Your task to perform on an android device: open app "Roku - Official Remote Control" (install if not already installed) and go to login screen Image 0: 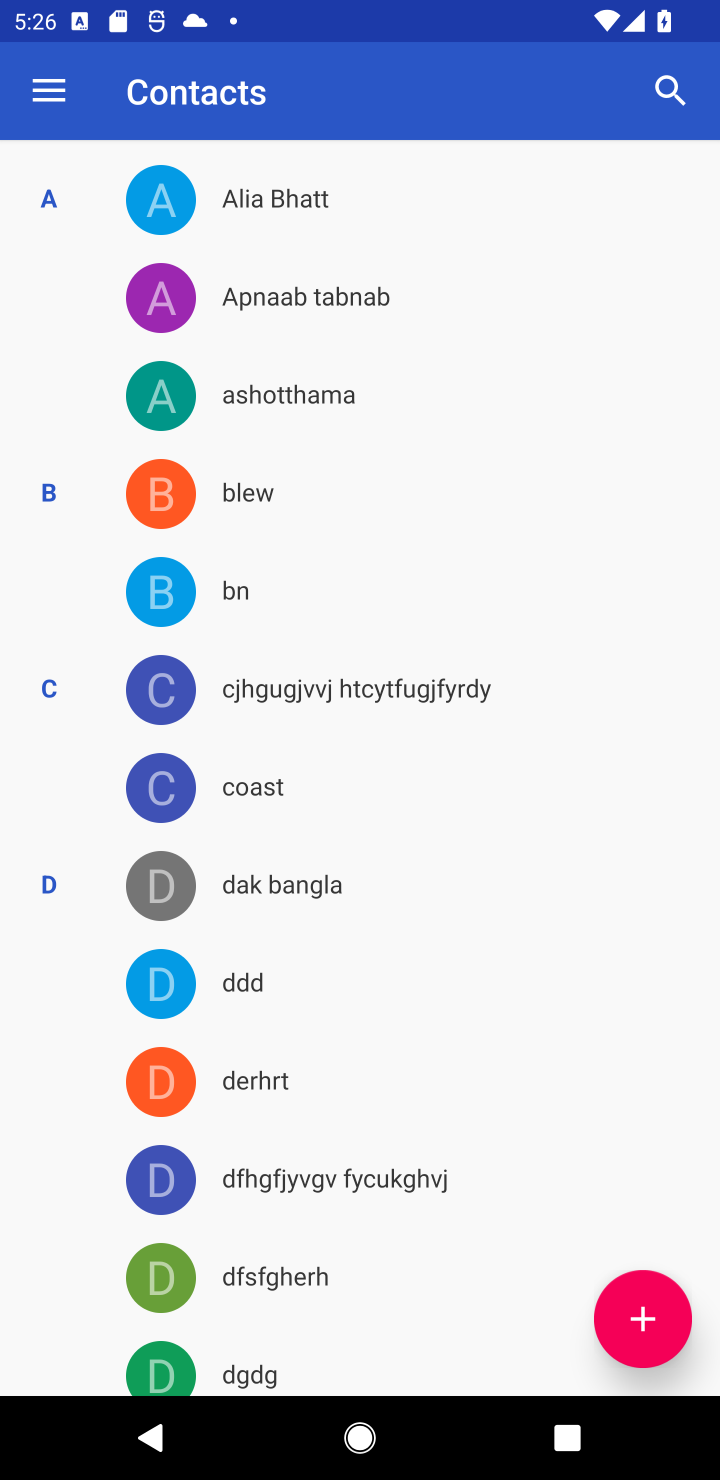
Step 0: press home button
Your task to perform on an android device: open app "Roku - Official Remote Control" (install if not already installed) and go to login screen Image 1: 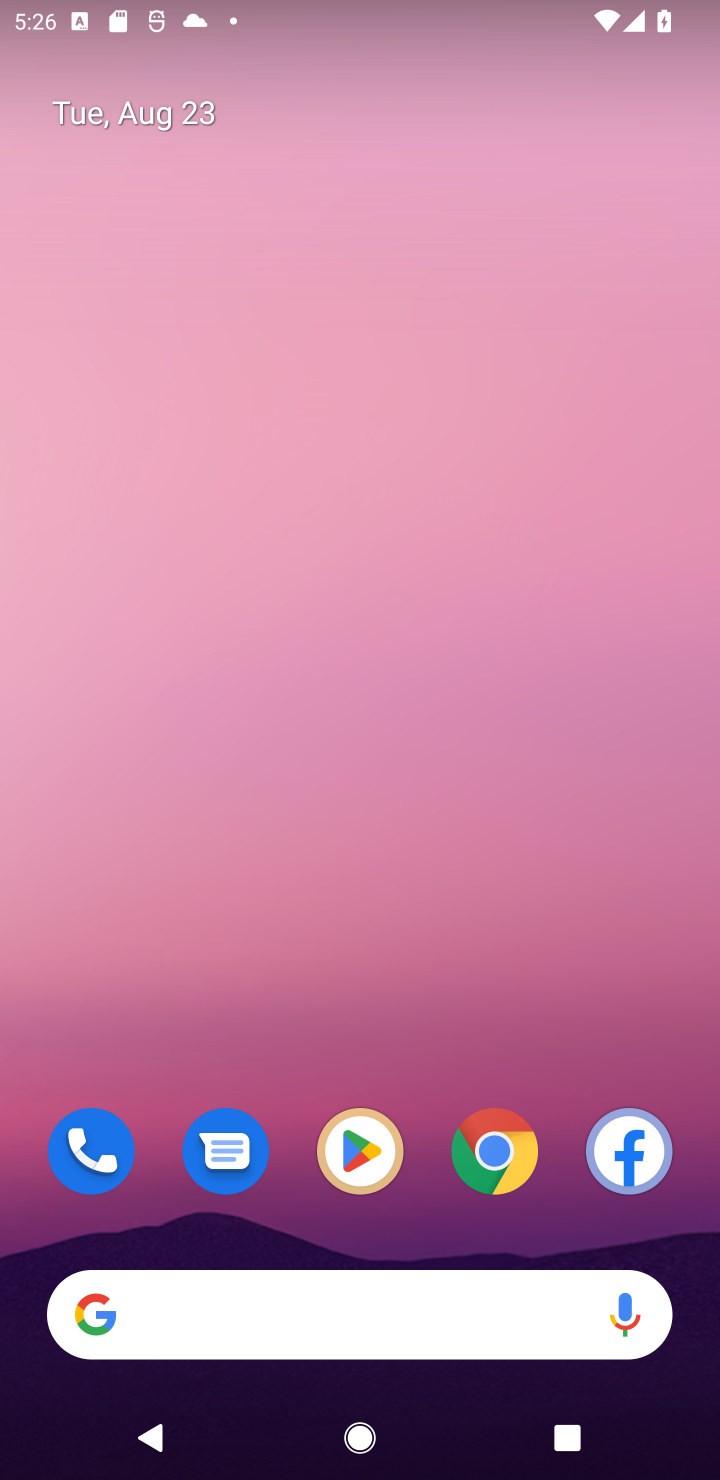
Step 1: click (348, 1159)
Your task to perform on an android device: open app "Roku - Official Remote Control" (install if not already installed) and go to login screen Image 2: 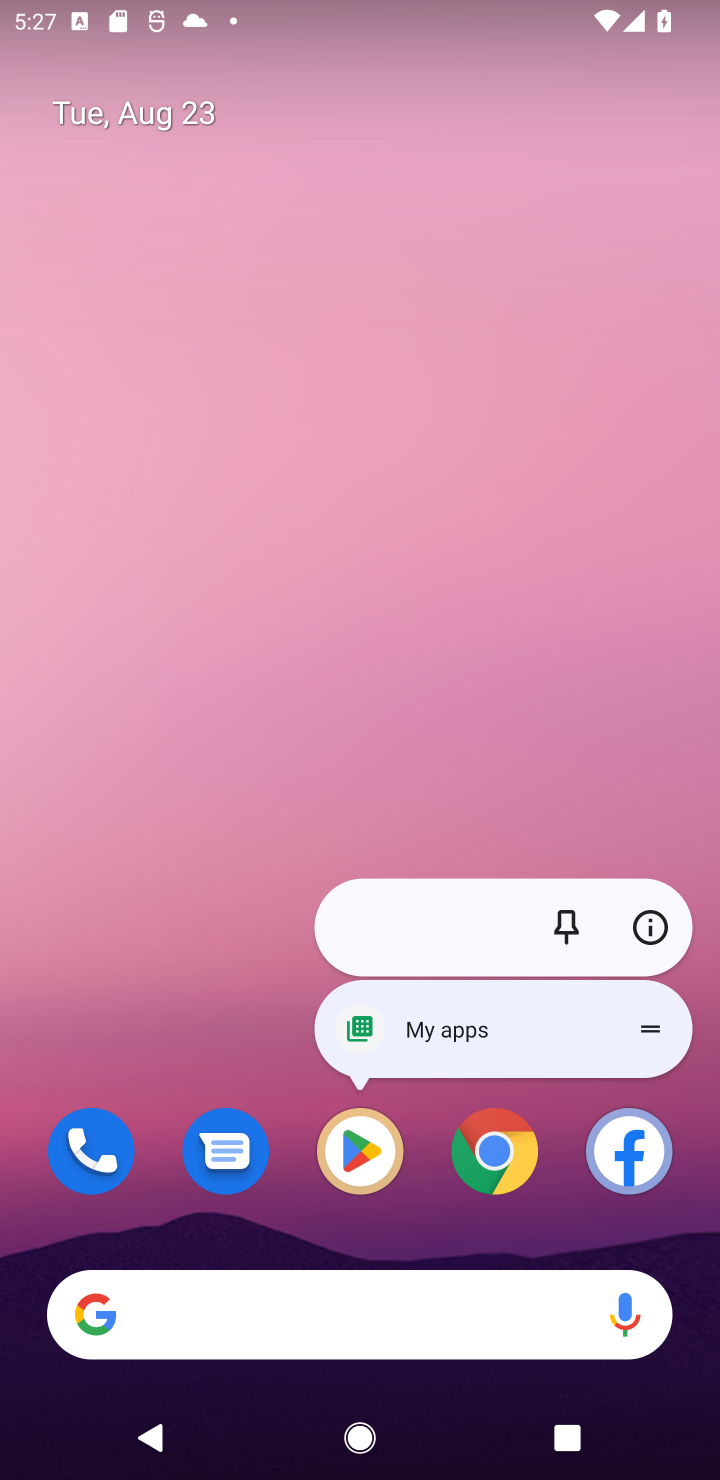
Step 2: click (348, 1161)
Your task to perform on an android device: open app "Roku - Official Remote Control" (install if not already installed) and go to login screen Image 3: 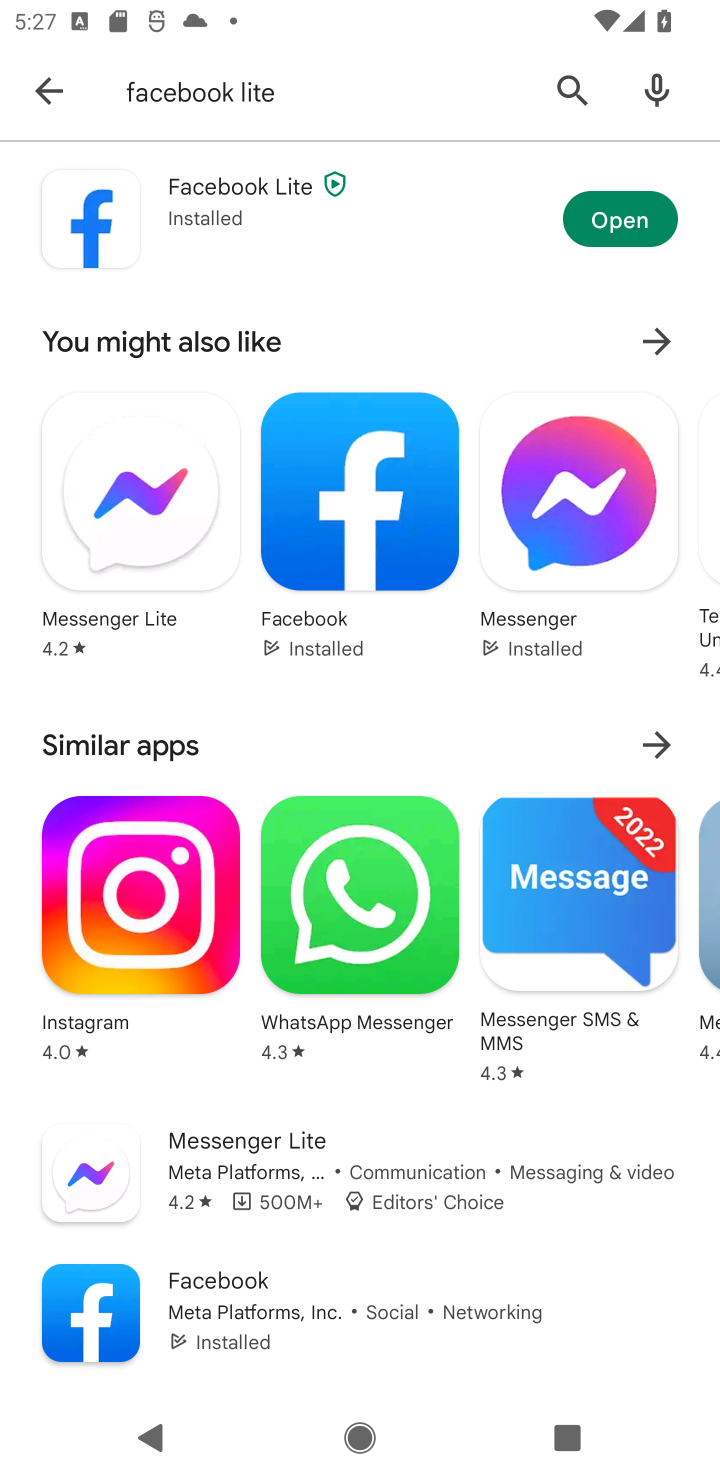
Step 3: click (563, 85)
Your task to perform on an android device: open app "Roku - Official Remote Control" (install if not already installed) and go to login screen Image 4: 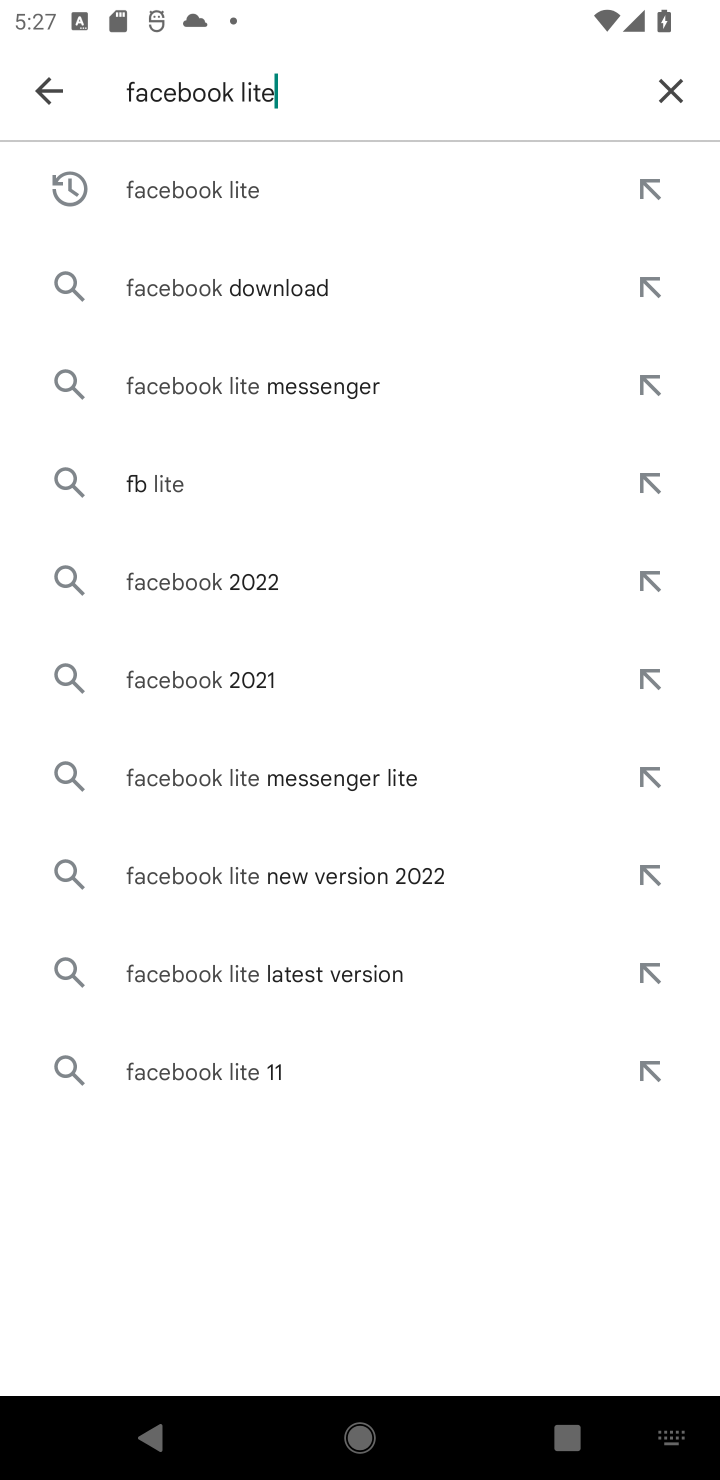
Step 4: click (680, 81)
Your task to perform on an android device: open app "Roku - Official Remote Control" (install if not already installed) and go to login screen Image 5: 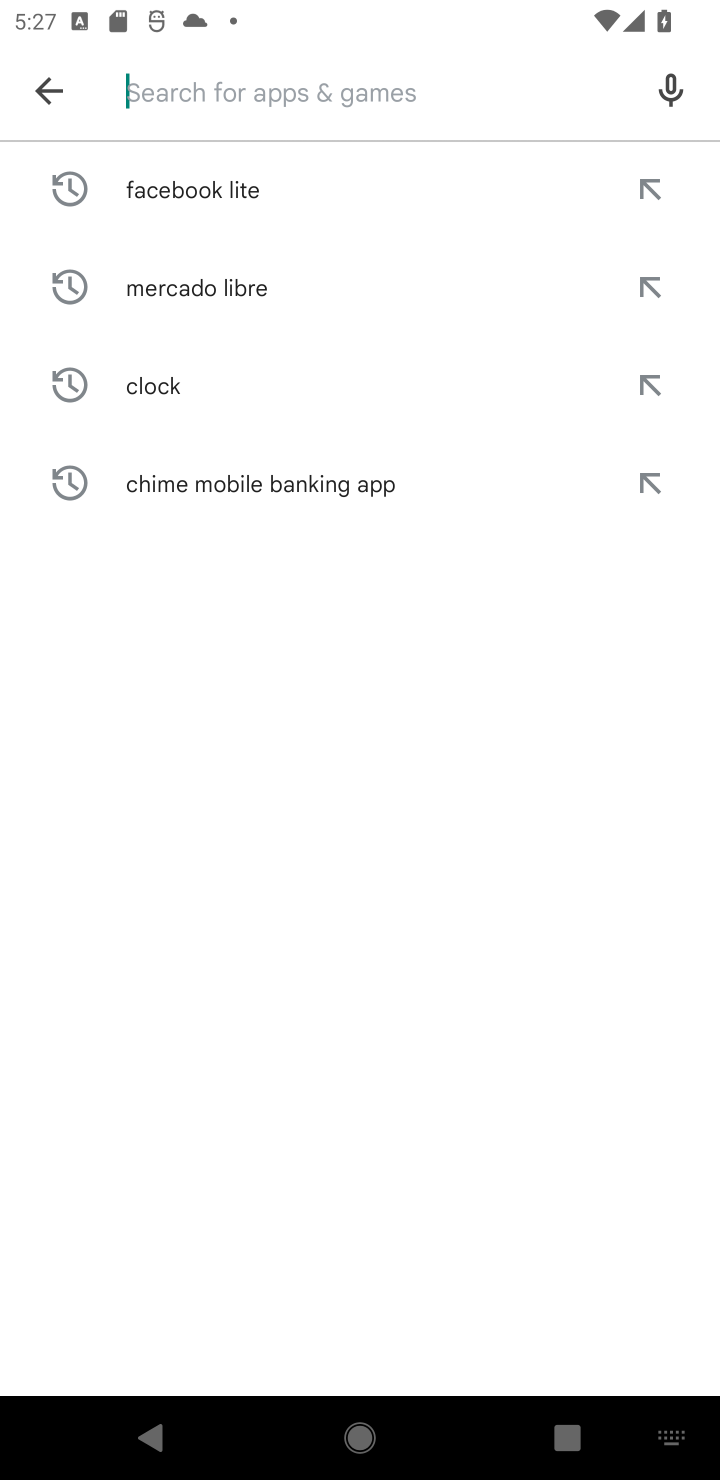
Step 5: type "Roku - Official Remote Control"
Your task to perform on an android device: open app "Roku - Official Remote Control" (install if not already installed) and go to login screen Image 6: 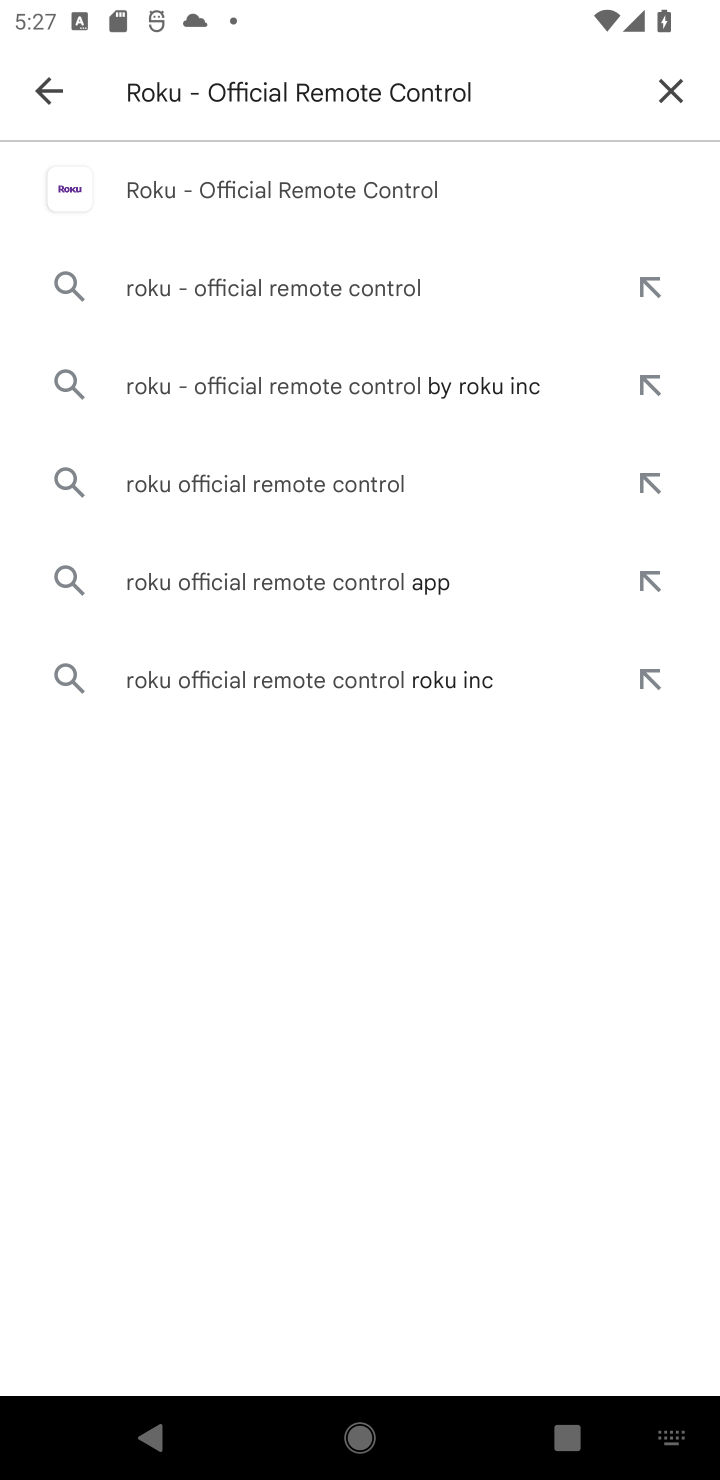
Step 6: click (347, 190)
Your task to perform on an android device: open app "Roku - Official Remote Control" (install if not already installed) and go to login screen Image 7: 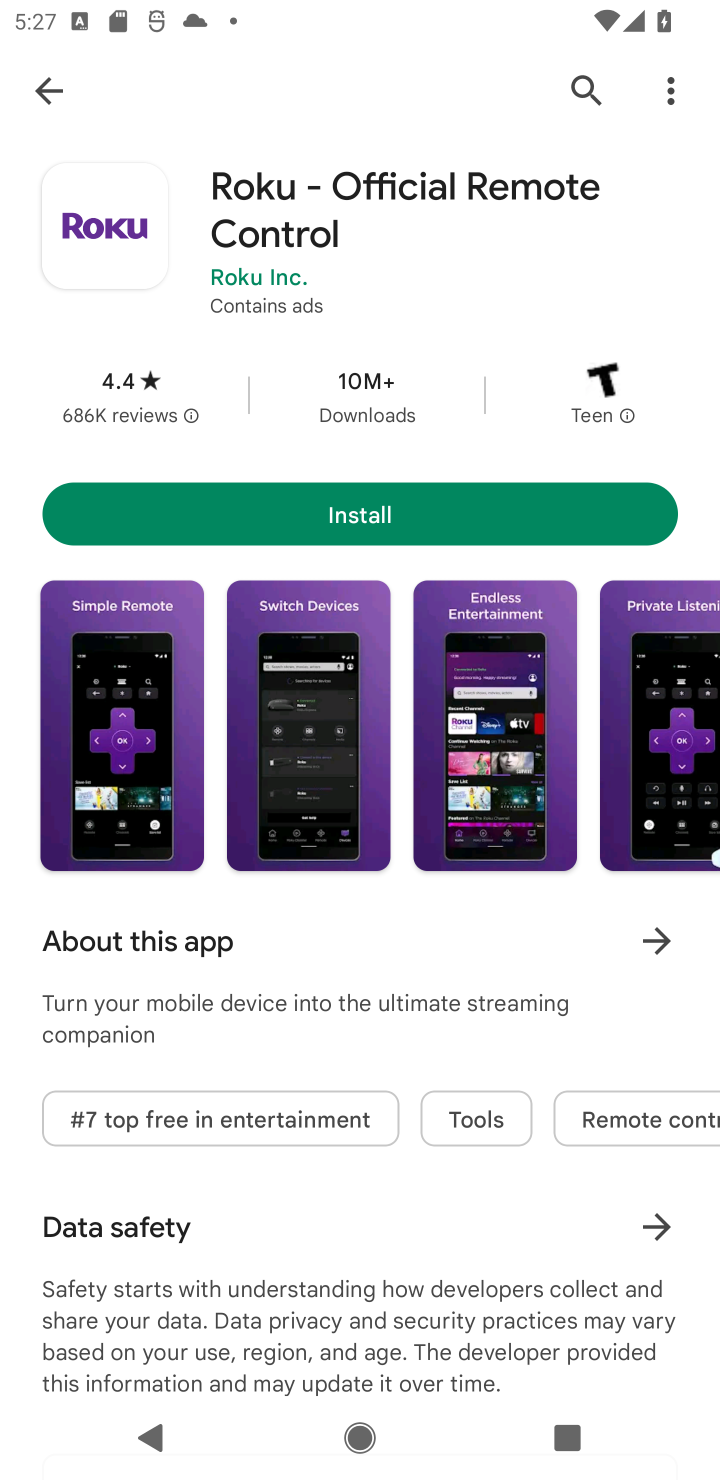
Step 7: click (370, 517)
Your task to perform on an android device: open app "Roku - Official Remote Control" (install if not already installed) and go to login screen Image 8: 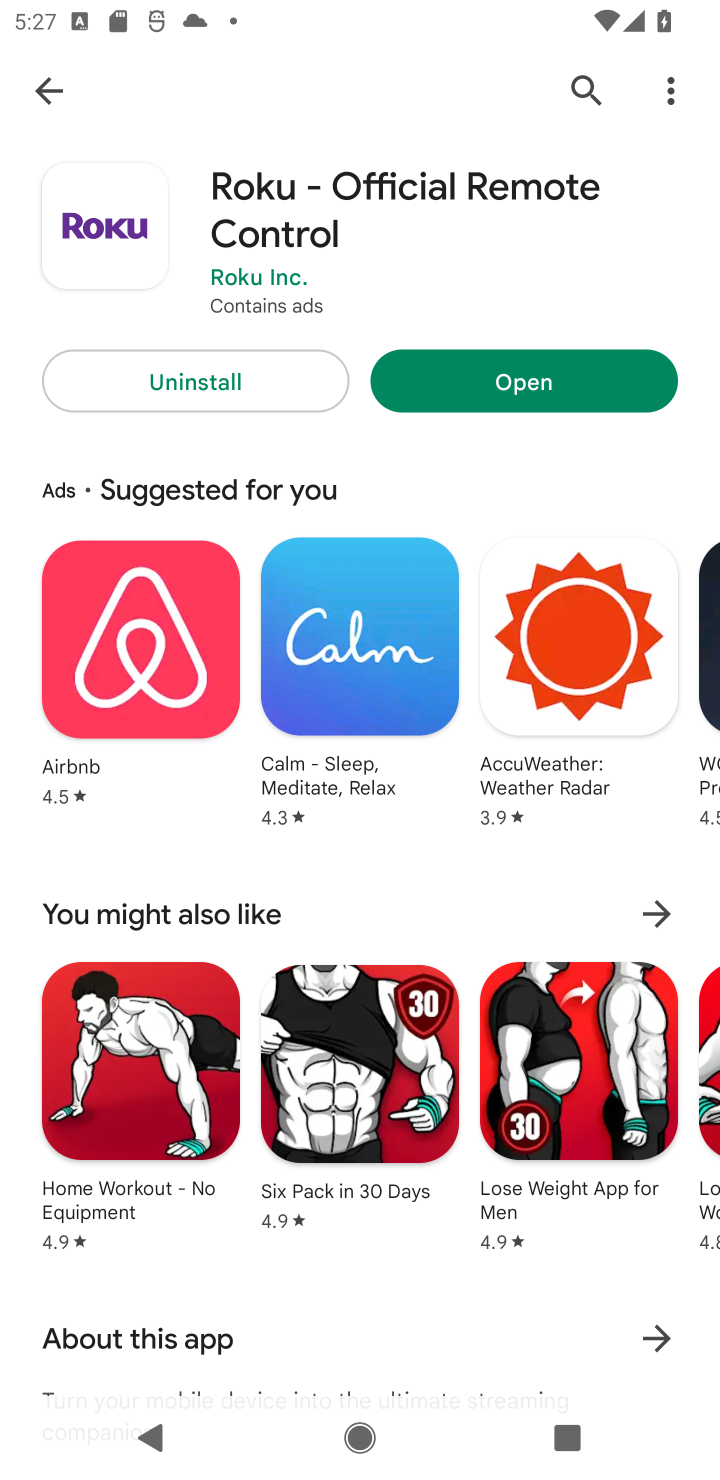
Step 8: click (600, 389)
Your task to perform on an android device: open app "Roku - Official Remote Control" (install if not already installed) and go to login screen Image 9: 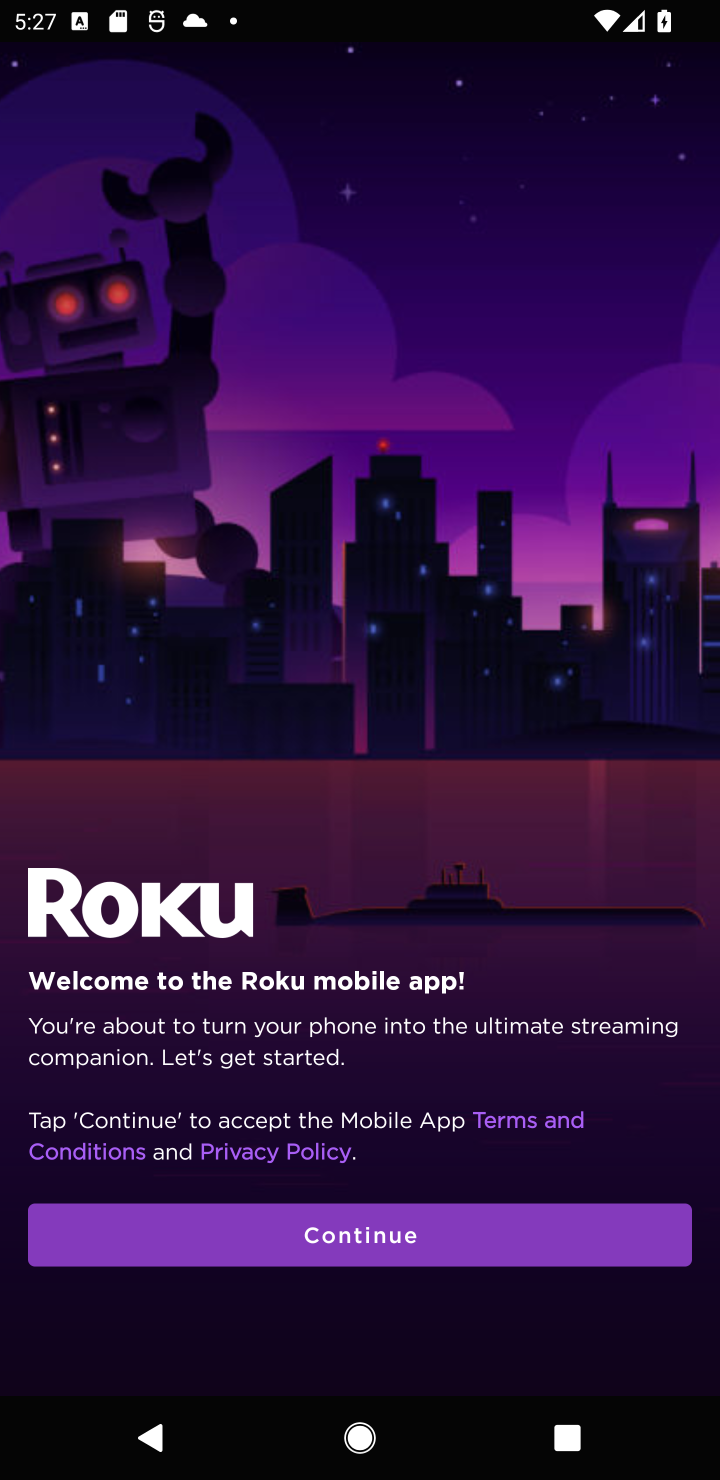
Step 9: click (380, 1234)
Your task to perform on an android device: open app "Roku - Official Remote Control" (install if not already installed) and go to login screen Image 10: 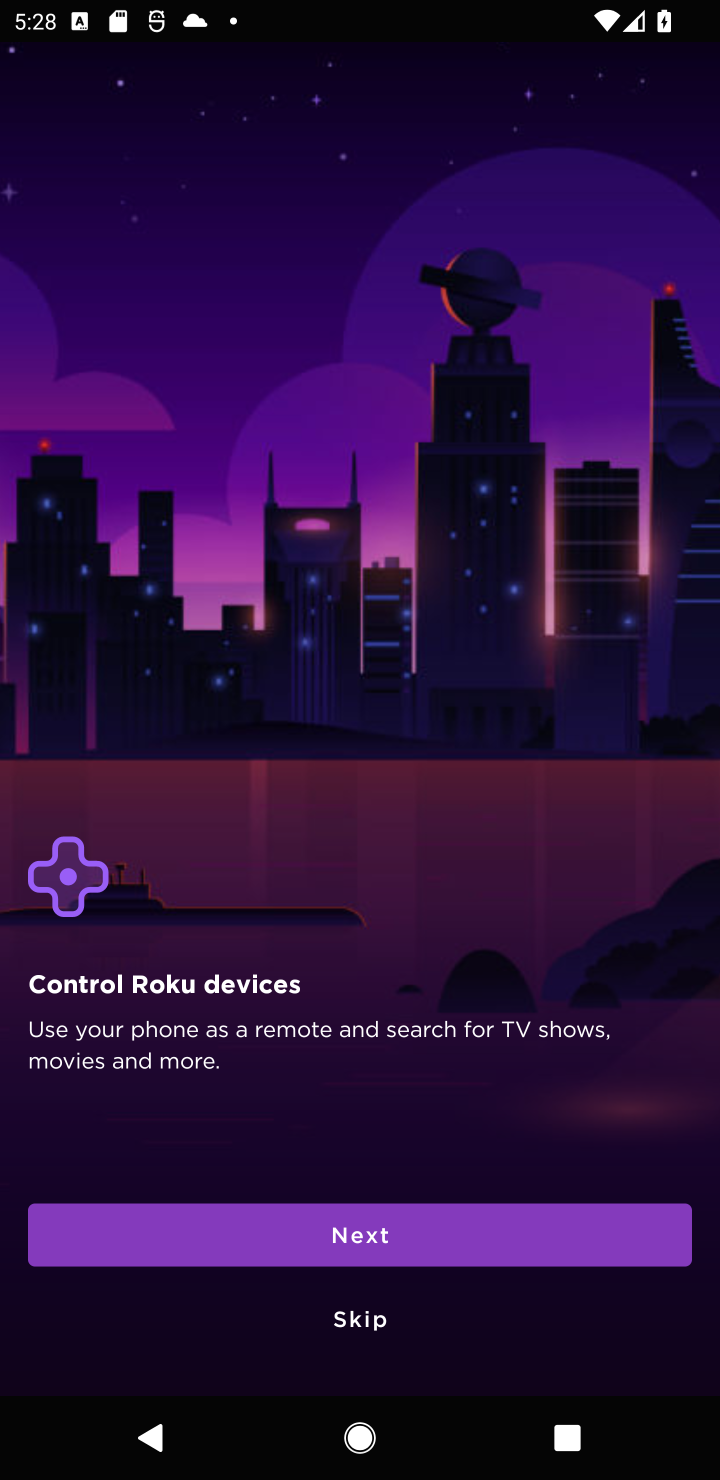
Step 10: click (367, 1312)
Your task to perform on an android device: open app "Roku - Official Remote Control" (install if not already installed) and go to login screen Image 11: 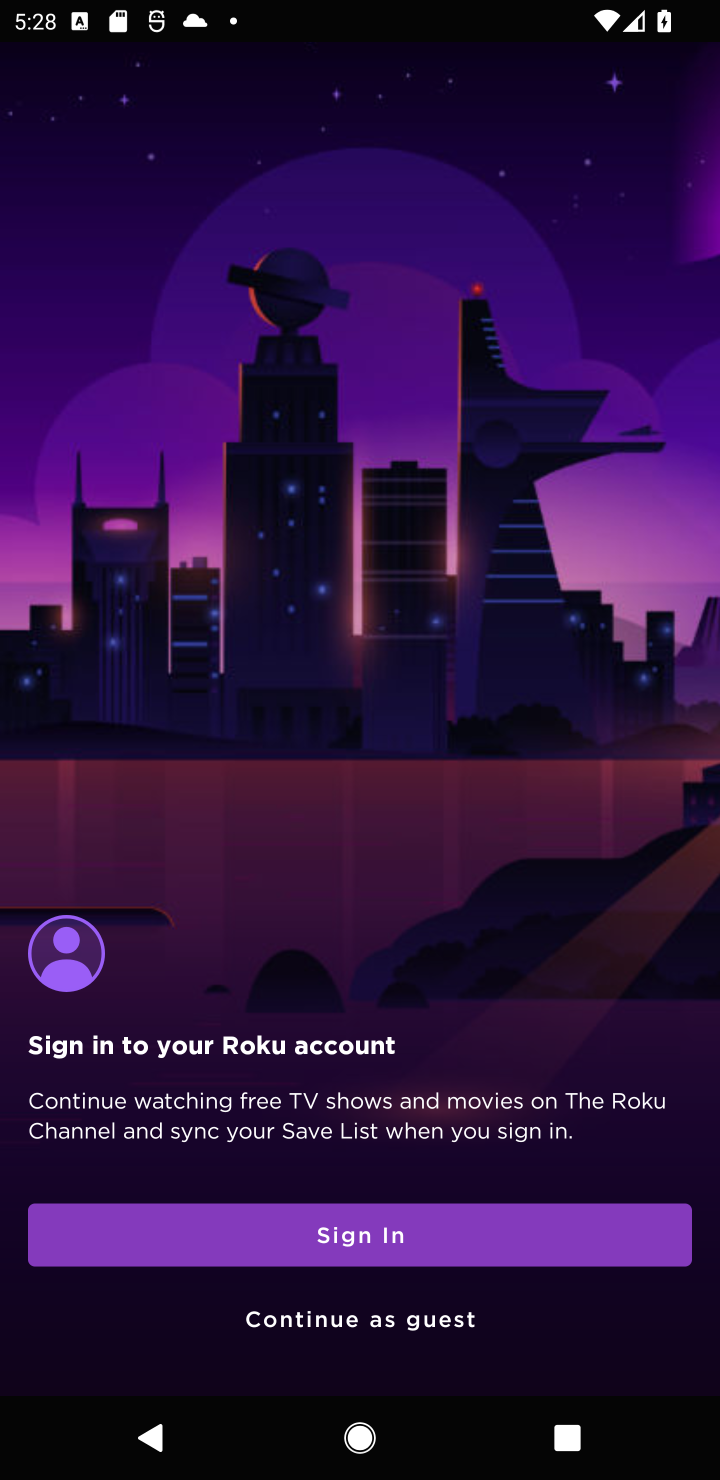
Step 11: click (409, 1244)
Your task to perform on an android device: open app "Roku - Official Remote Control" (install if not already installed) and go to login screen Image 12: 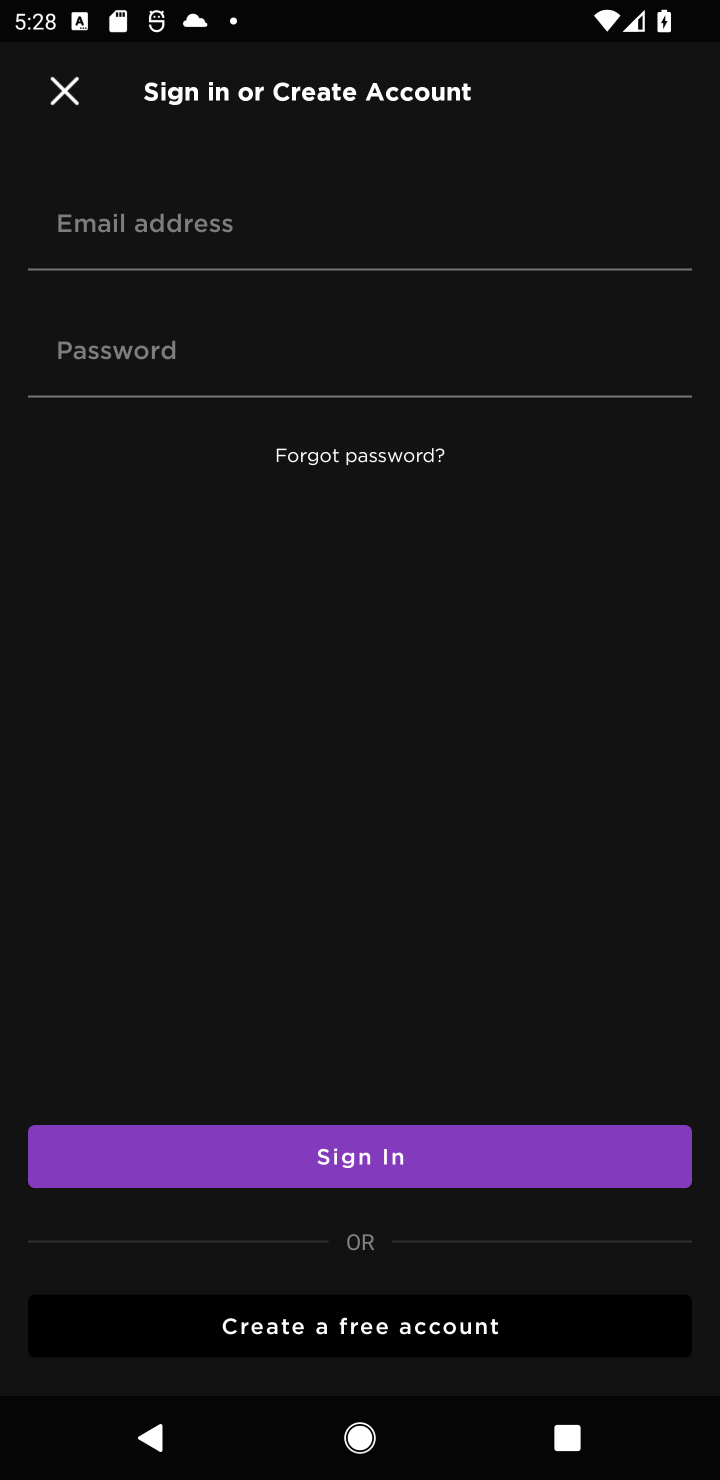
Step 12: task complete